Your task to perform on an android device: Open my contact list Image 0: 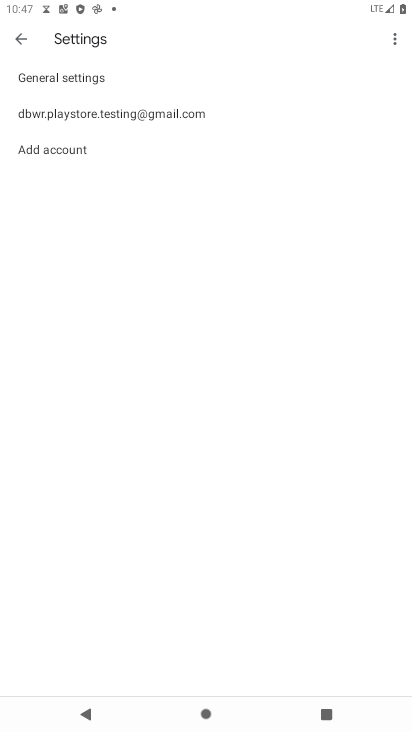
Step 0: press home button
Your task to perform on an android device: Open my contact list Image 1: 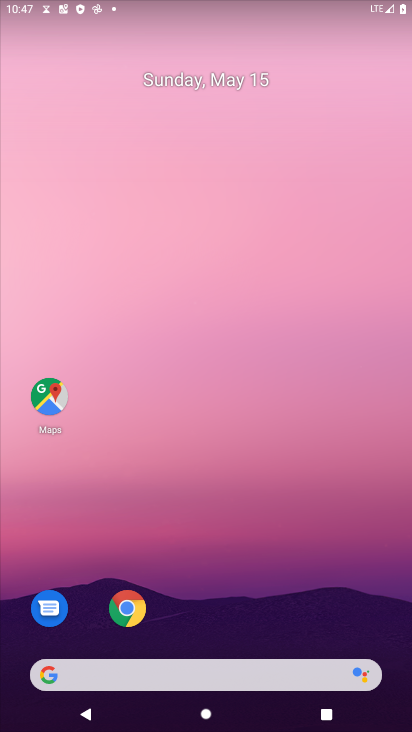
Step 1: drag from (292, 554) to (211, 31)
Your task to perform on an android device: Open my contact list Image 2: 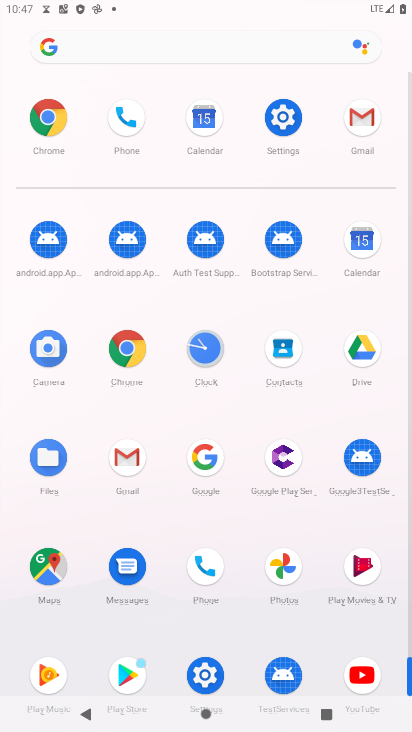
Step 2: click (207, 560)
Your task to perform on an android device: Open my contact list Image 3: 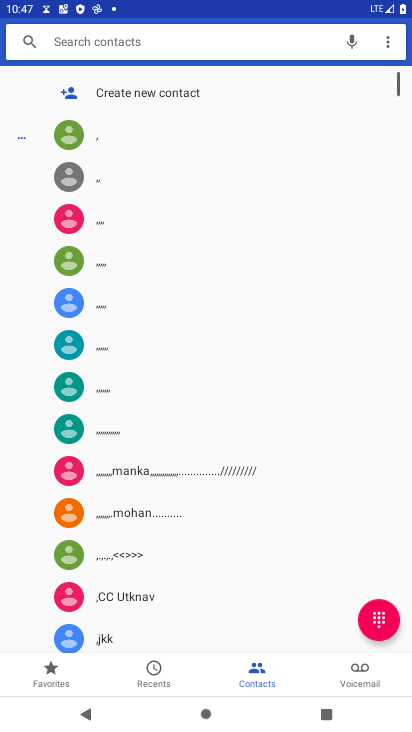
Step 3: task complete